Your task to perform on an android device: remove spam from my inbox in the gmail app Image 0: 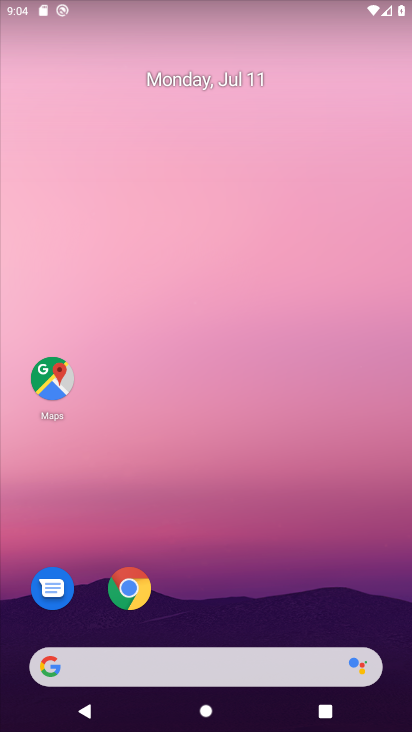
Step 0: drag from (227, 596) to (234, 312)
Your task to perform on an android device: remove spam from my inbox in the gmail app Image 1: 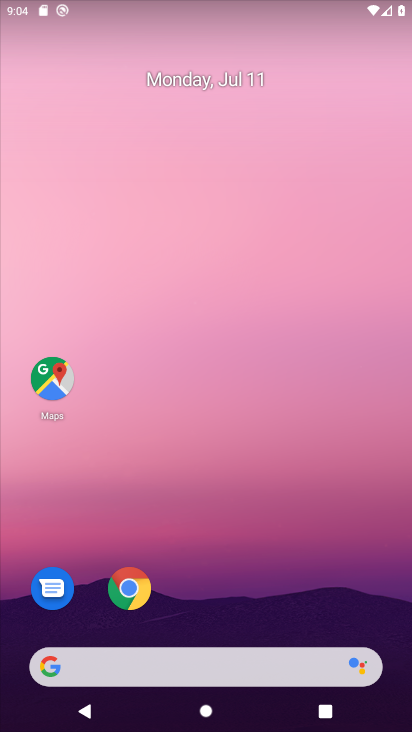
Step 1: drag from (194, 637) to (239, 175)
Your task to perform on an android device: remove spam from my inbox in the gmail app Image 2: 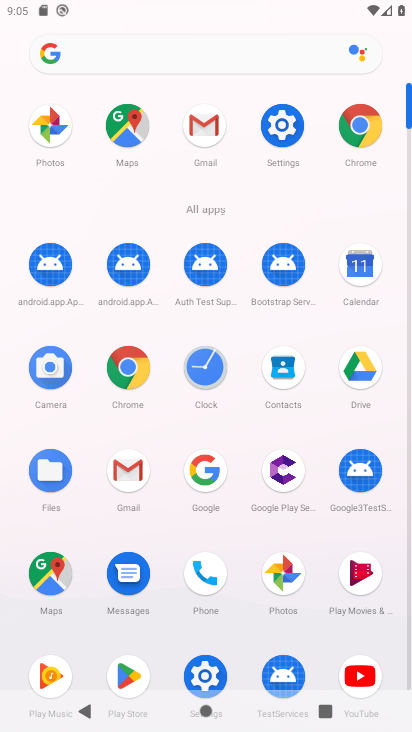
Step 2: click (129, 447)
Your task to perform on an android device: remove spam from my inbox in the gmail app Image 3: 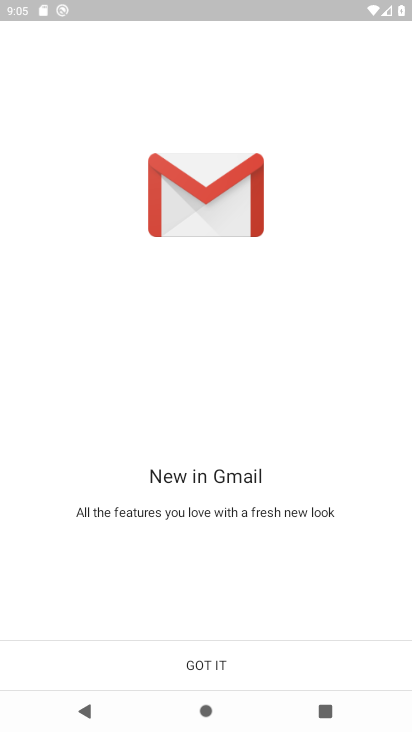
Step 3: click (206, 650)
Your task to perform on an android device: remove spam from my inbox in the gmail app Image 4: 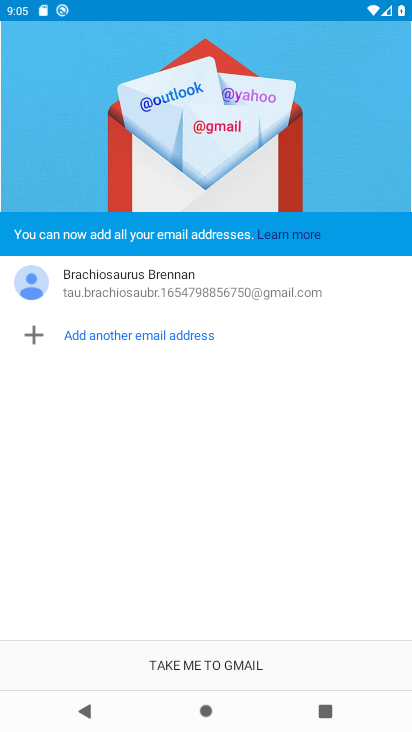
Step 4: click (206, 650)
Your task to perform on an android device: remove spam from my inbox in the gmail app Image 5: 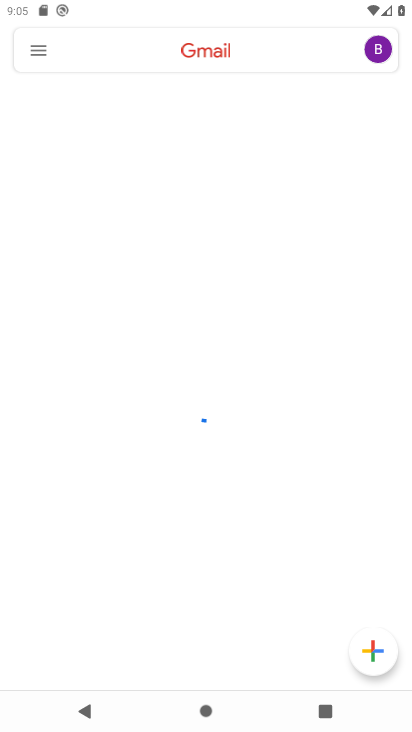
Step 5: click (35, 44)
Your task to perform on an android device: remove spam from my inbox in the gmail app Image 6: 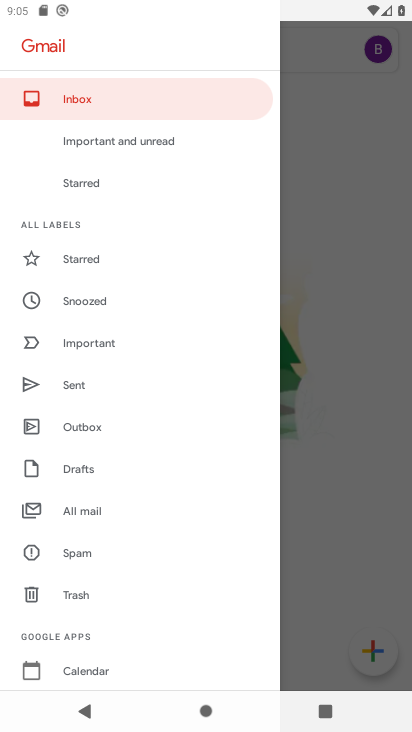
Step 6: click (80, 548)
Your task to perform on an android device: remove spam from my inbox in the gmail app Image 7: 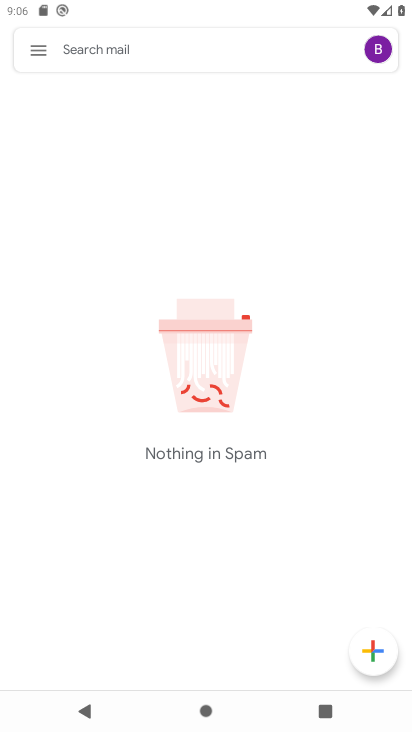
Step 7: click (32, 48)
Your task to perform on an android device: remove spam from my inbox in the gmail app Image 8: 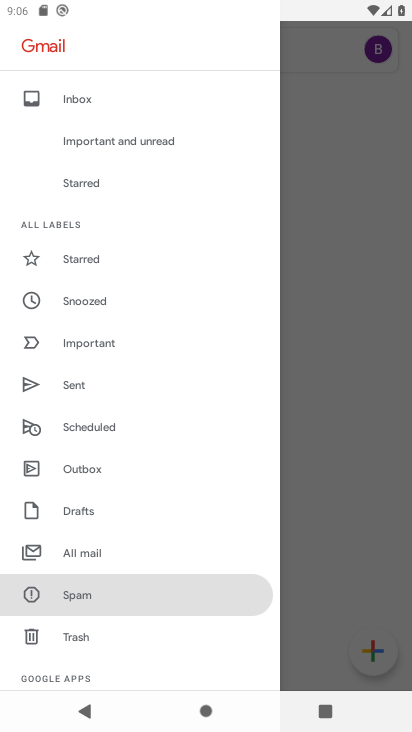
Step 8: click (152, 591)
Your task to perform on an android device: remove spam from my inbox in the gmail app Image 9: 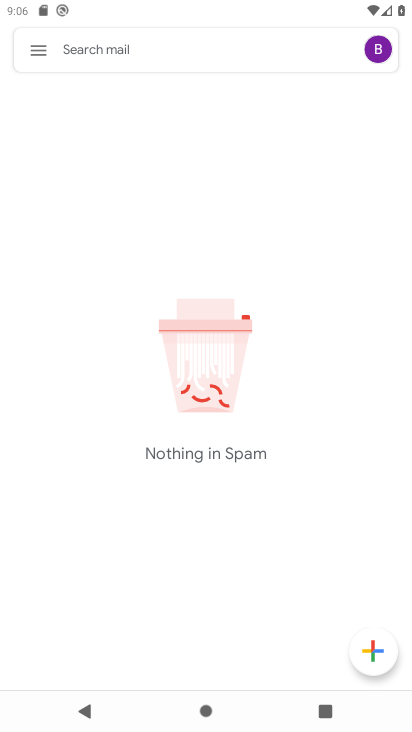
Step 9: task complete